Your task to perform on an android device: Go to network settings Image 0: 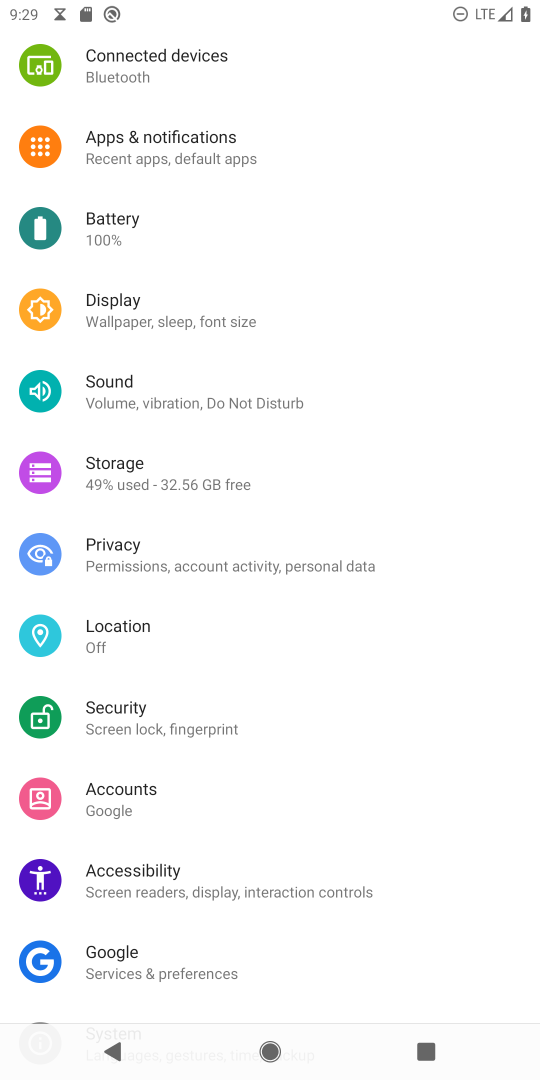
Step 0: press home button
Your task to perform on an android device: Go to network settings Image 1: 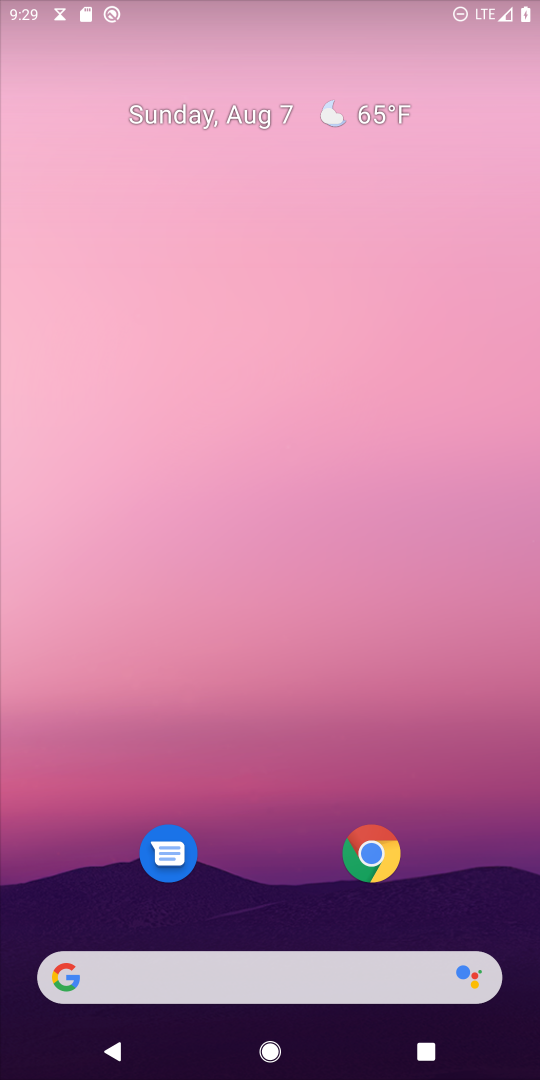
Step 1: drag from (226, 888) to (336, 70)
Your task to perform on an android device: Go to network settings Image 2: 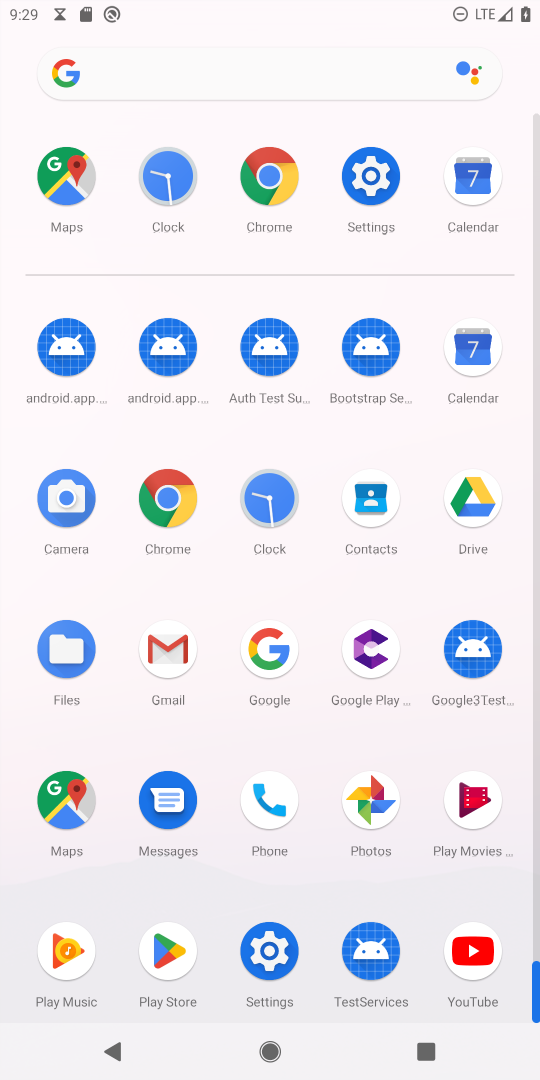
Step 2: click (365, 156)
Your task to perform on an android device: Go to network settings Image 3: 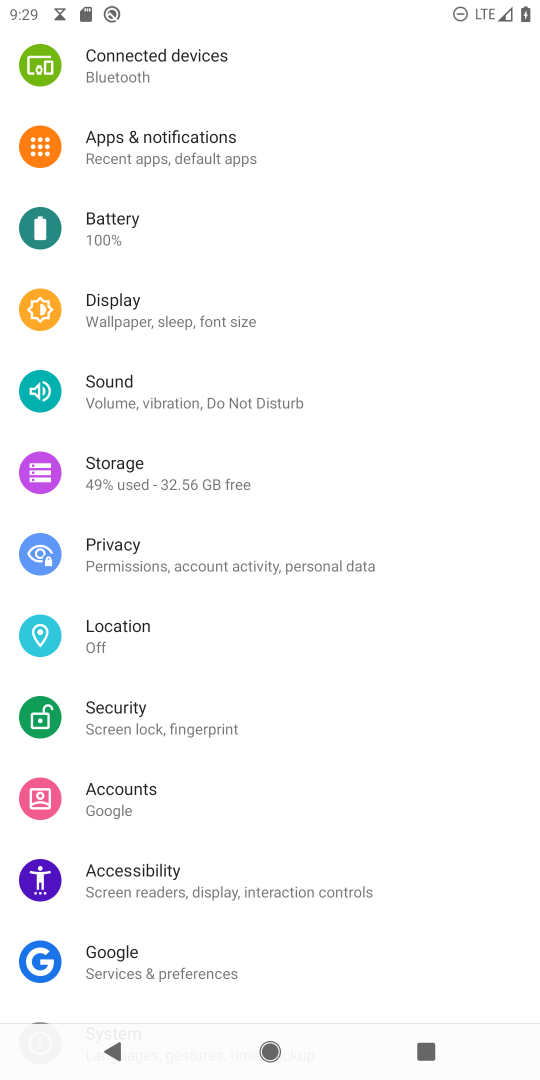
Step 3: drag from (213, 81) to (204, 991)
Your task to perform on an android device: Go to network settings Image 4: 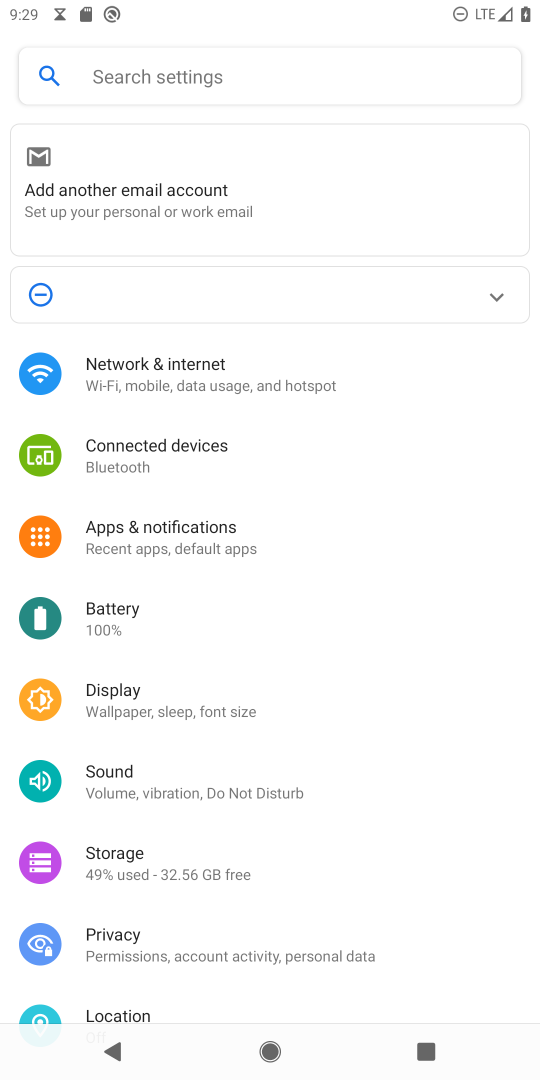
Step 4: click (186, 383)
Your task to perform on an android device: Go to network settings Image 5: 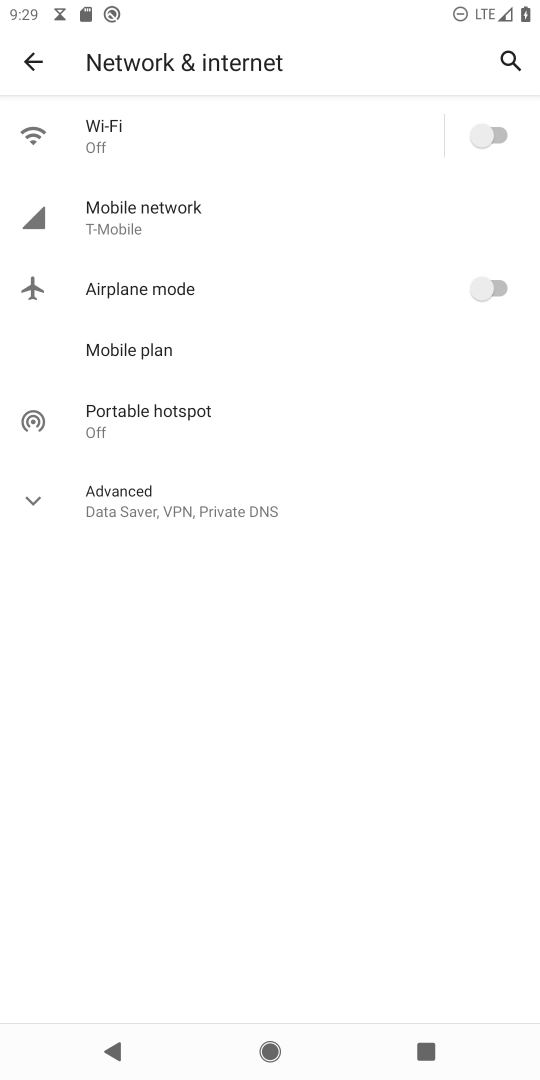
Step 5: task complete